Your task to perform on an android device: Search for "macbook" on ebay, select the first entry, add it to the cart, then select checkout. Image 0: 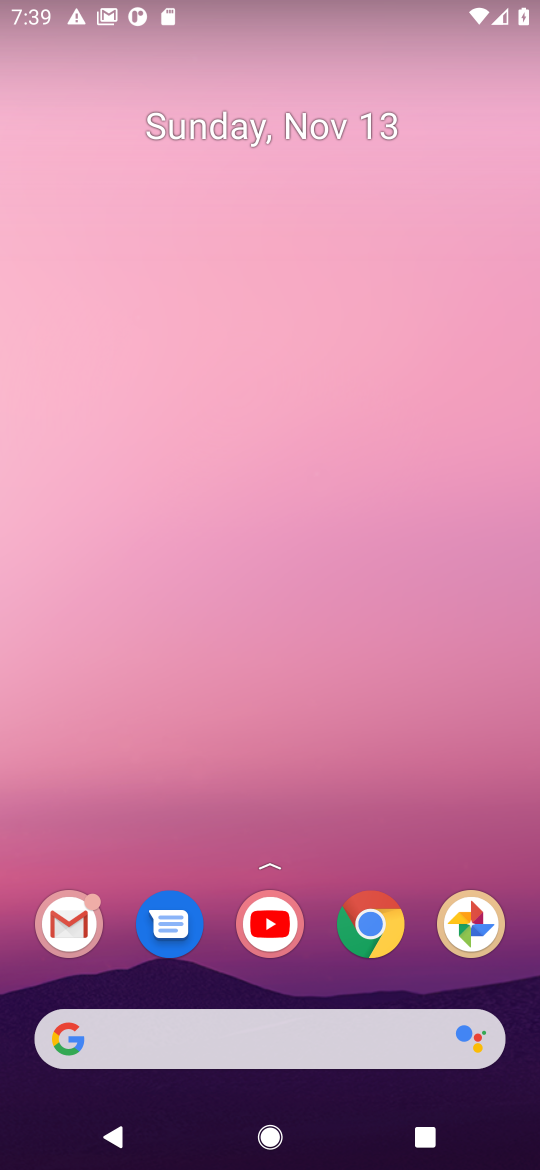
Step 0: click (392, 921)
Your task to perform on an android device: Search for "macbook" on ebay, select the first entry, add it to the cart, then select checkout. Image 1: 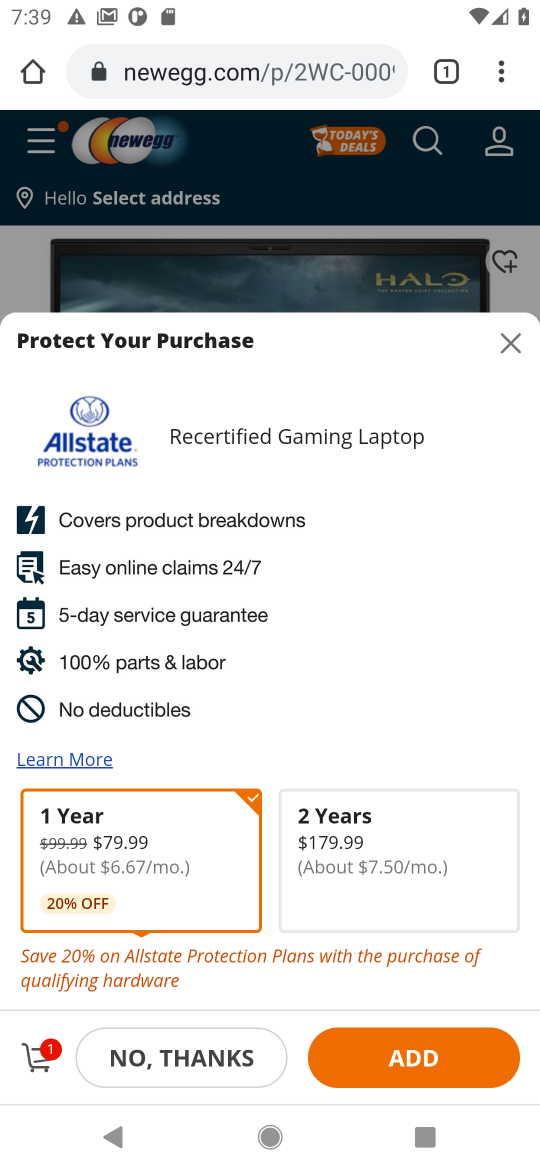
Step 1: click (338, 67)
Your task to perform on an android device: Search for "macbook" on ebay, select the first entry, add it to the cart, then select checkout. Image 2: 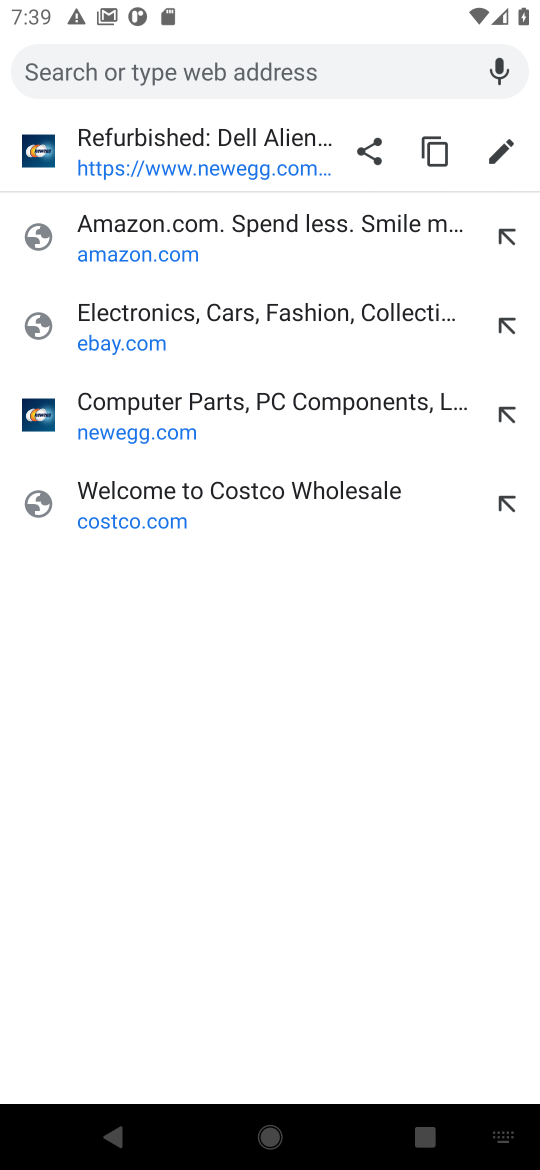
Step 2: click (133, 323)
Your task to perform on an android device: Search for "macbook" on ebay, select the first entry, add it to the cart, then select checkout. Image 3: 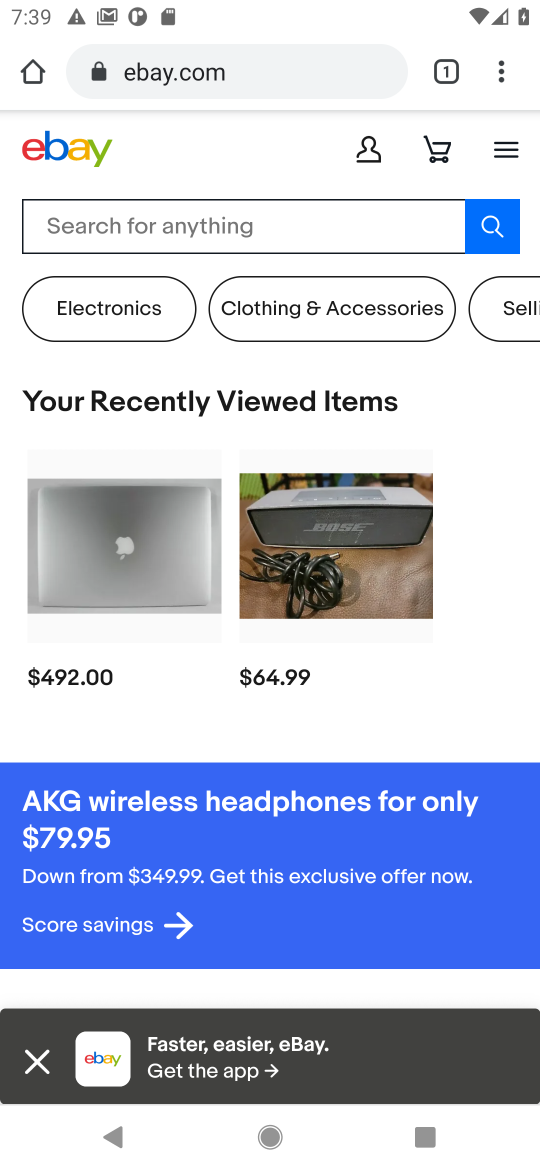
Step 3: click (195, 236)
Your task to perform on an android device: Search for "macbook" on ebay, select the first entry, add it to the cart, then select checkout. Image 4: 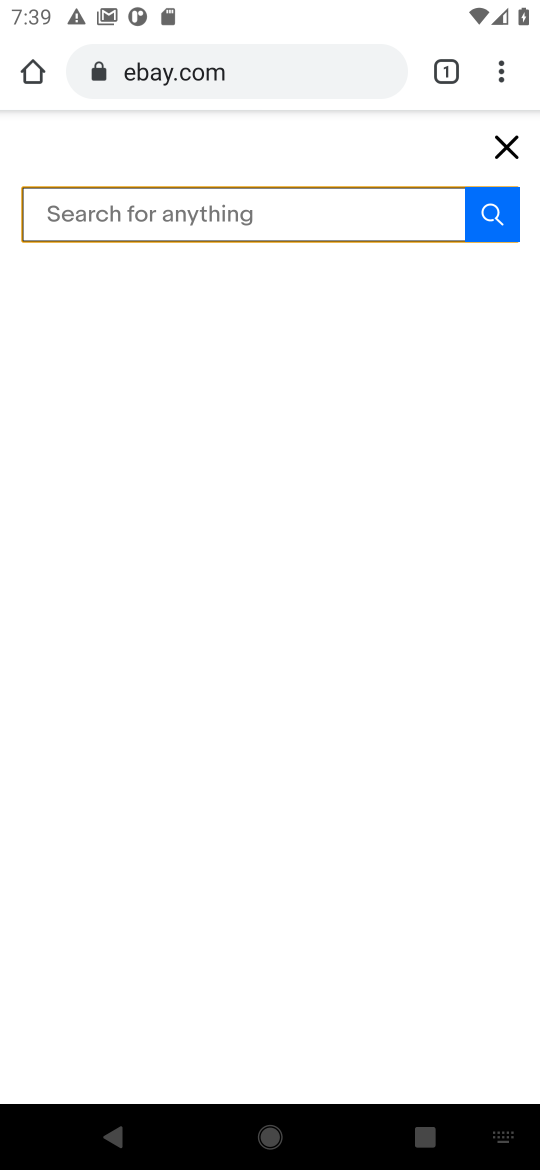
Step 4: type "macbook"
Your task to perform on an android device: Search for "macbook" on ebay, select the first entry, add it to the cart, then select checkout. Image 5: 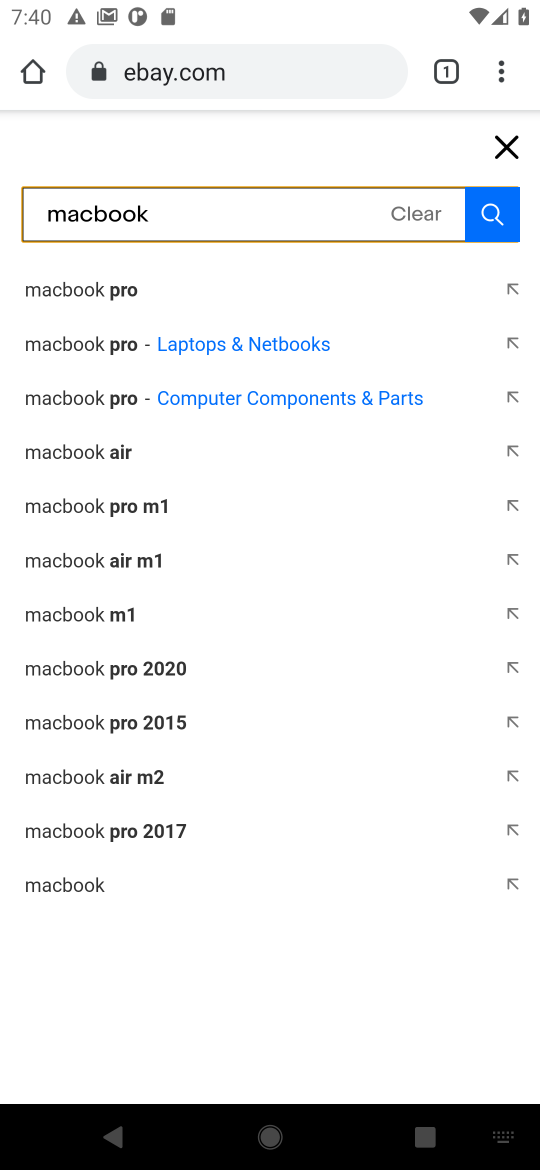
Step 5: click (58, 891)
Your task to perform on an android device: Search for "macbook" on ebay, select the first entry, add it to the cart, then select checkout. Image 6: 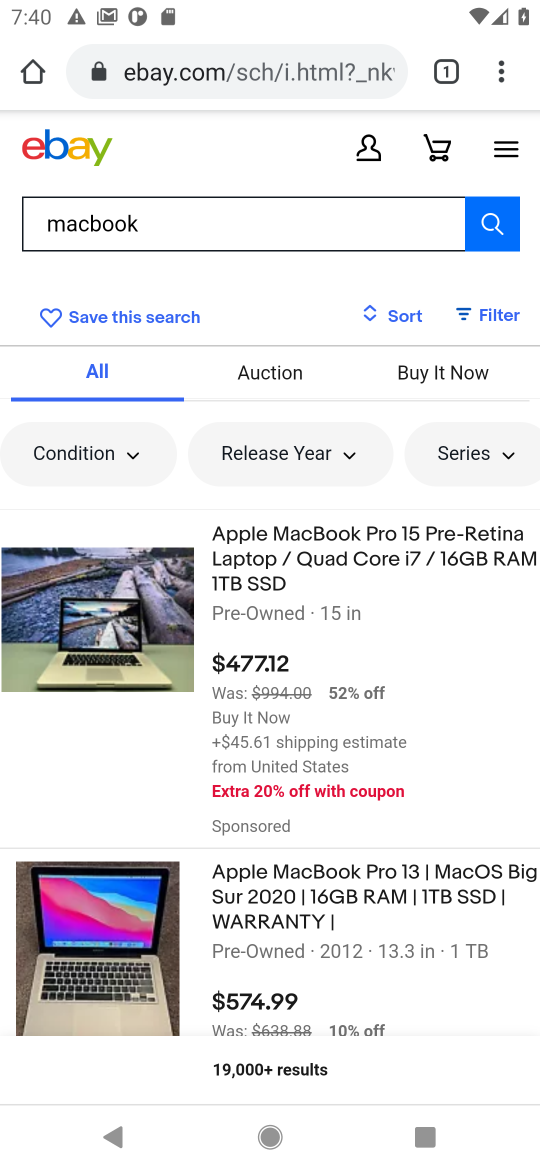
Step 6: click (136, 599)
Your task to perform on an android device: Search for "macbook" on ebay, select the first entry, add it to the cart, then select checkout. Image 7: 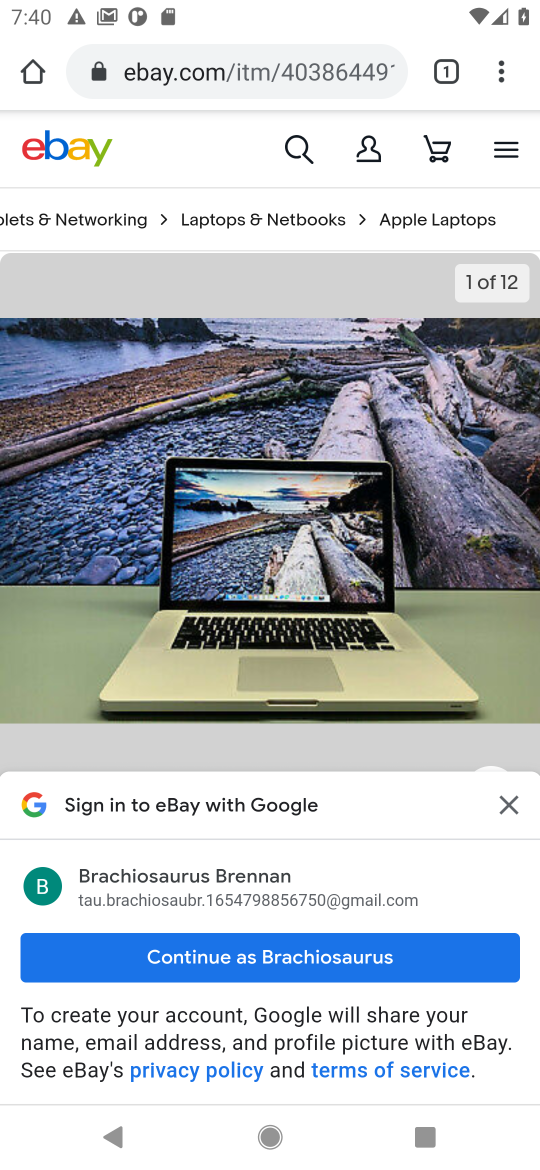
Step 7: click (512, 810)
Your task to perform on an android device: Search for "macbook" on ebay, select the first entry, add it to the cart, then select checkout. Image 8: 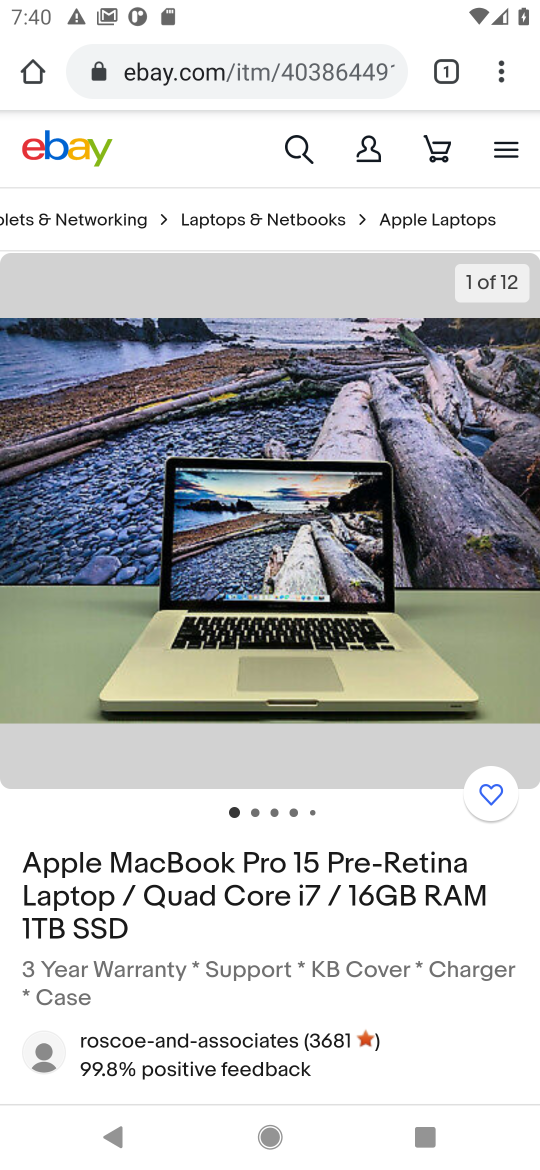
Step 8: drag from (290, 695) to (250, 286)
Your task to perform on an android device: Search for "macbook" on ebay, select the first entry, add it to the cart, then select checkout. Image 9: 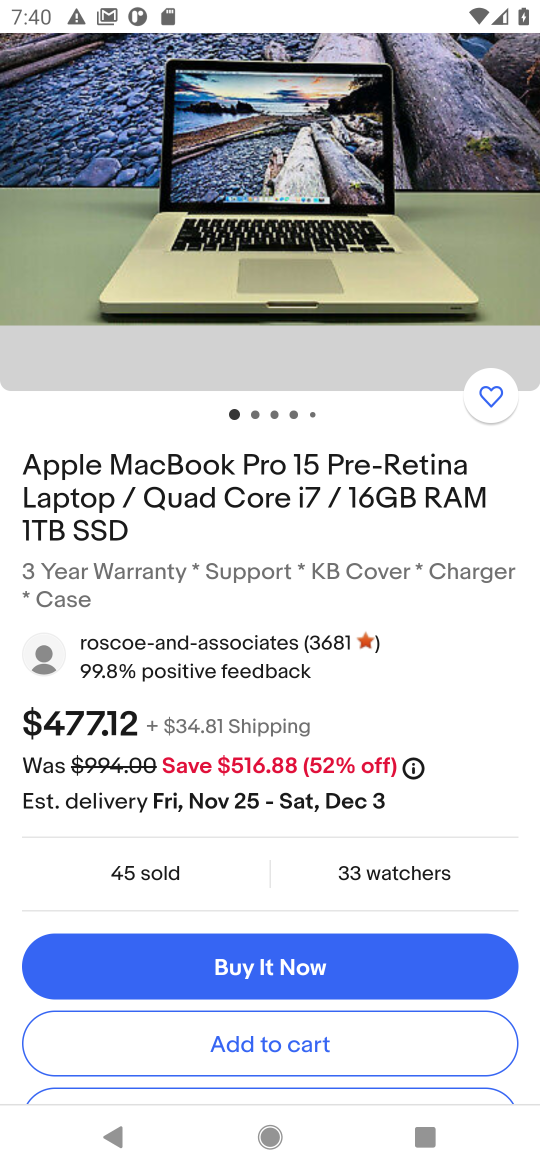
Step 9: click (216, 1049)
Your task to perform on an android device: Search for "macbook" on ebay, select the first entry, add it to the cart, then select checkout. Image 10: 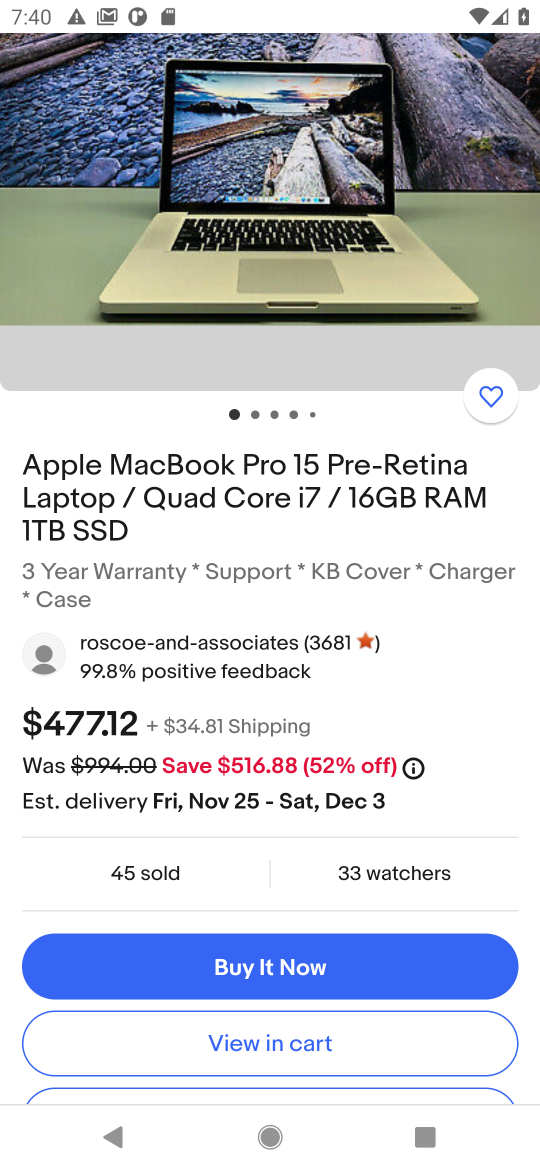
Step 10: drag from (474, 827) to (510, 584)
Your task to perform on an android device: Search for "macbook" on ebay, select the first entry, add it to the cart, then select checkout. Image 11: 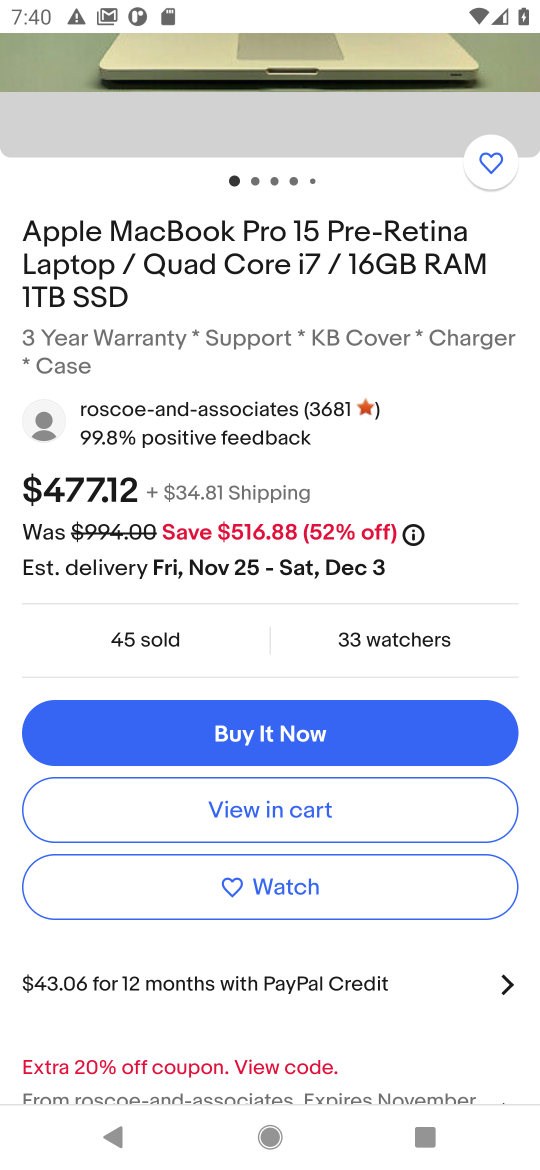
Step 11: click (374, 828)
Your task to perform on an android device: Search for "macbook" on ebay, select the first entry, add it to the cart, then select checkout. Image 12: 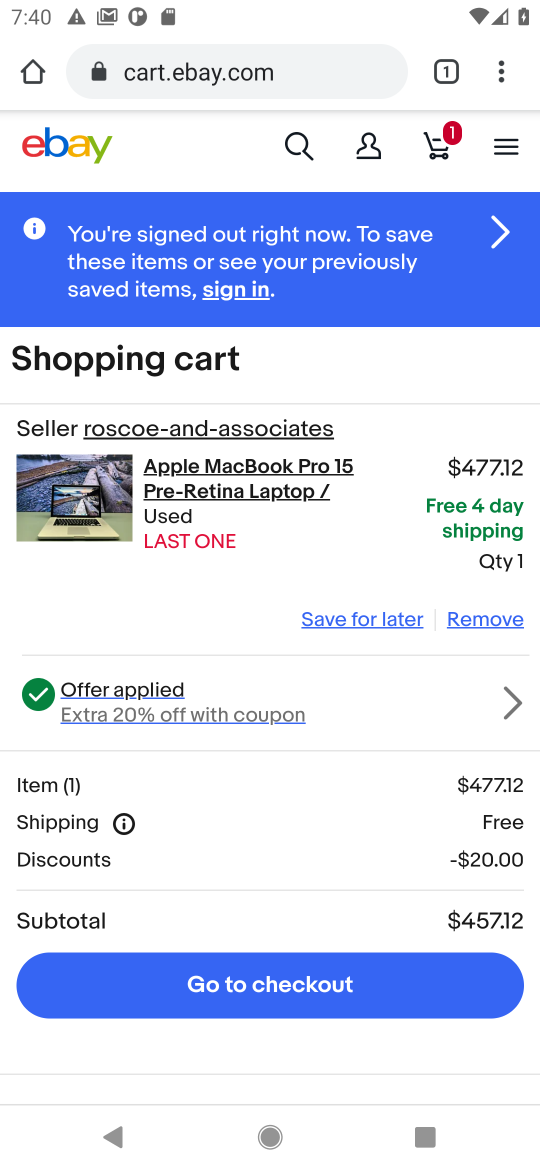
Step 12: click (345, 993)
Your task to perform on an android device: Search for "macbook" on ebay, select the first entry, add it to the cart, then select checkout. Image 13: 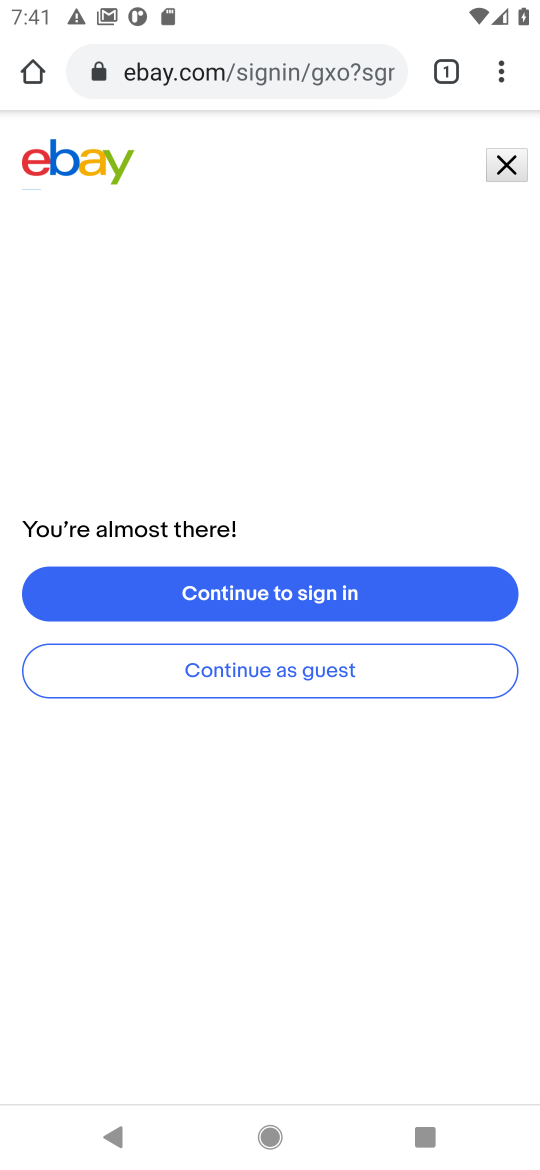
Step 13: task complete